Your task to perform on an android device: read, delete, or share a saved page in the chrome app Image 0: 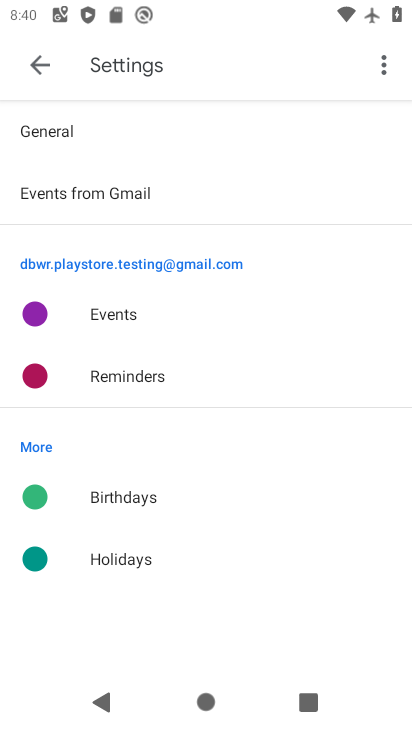
Step 0: press home button
Your task to perform on an android device: read, delete, or share a saved page in the chrome app Image 1: 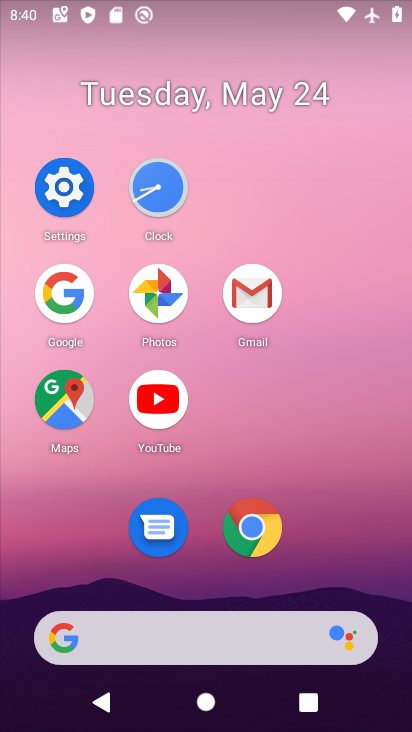
Step 1: click (233, 542)
Your task to perform on an android device: read, delete, or share a saved page in the chrome app Image 2: 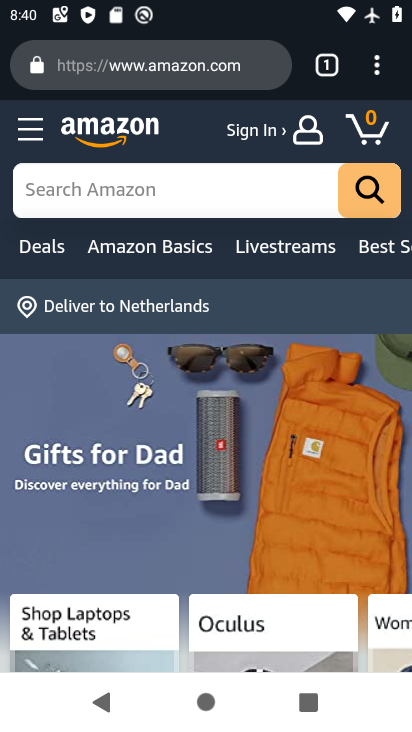
Step 2: click (385, 66)
Your task to perform on an android device: read, delete, or share a saved page in the chrome app Image 3: 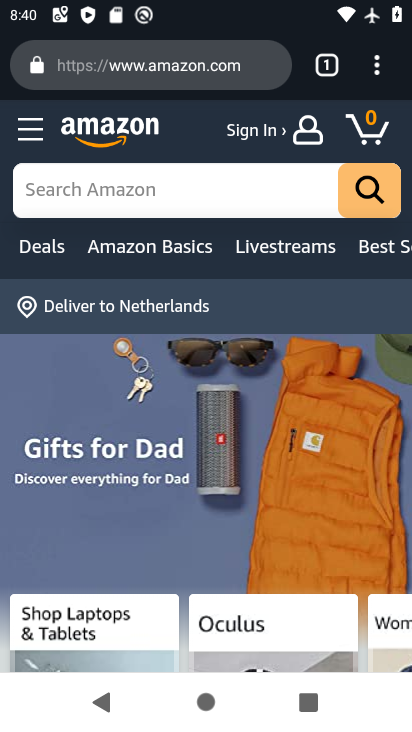
Step 3: click (384, 65)
Your task to perform on an android device: read, delete, or share a saved page in the chrome app Image 4: 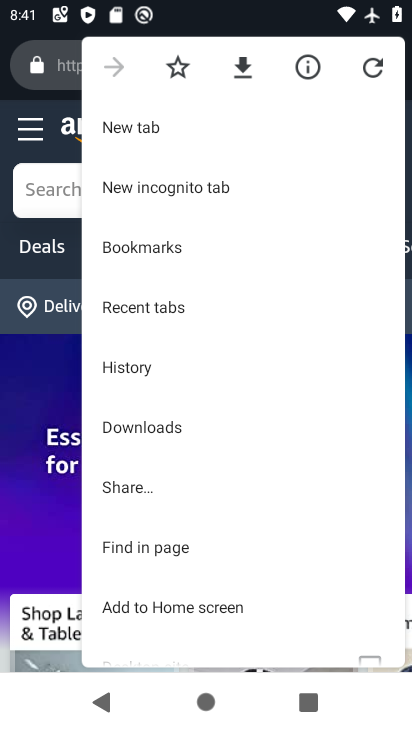
Step 4: click (133, 422)
Your task to perform on an android device: read, delete, or share a saved page in the chrome app Image 5: 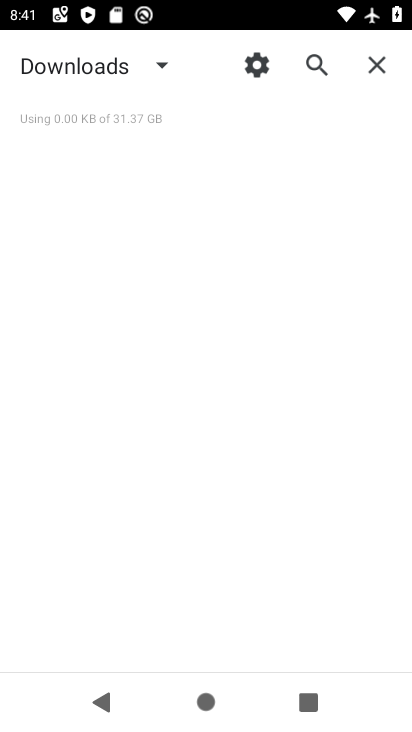
Step 5: task complete